Your task to perform on an android device: Open Reddit.com Image 0: 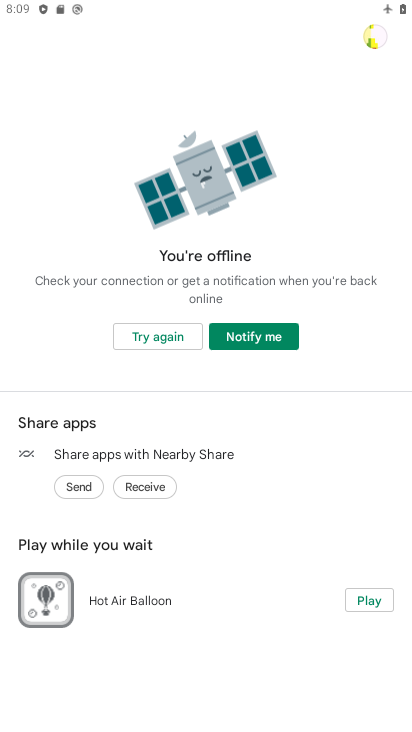
Step 0: press home button
Your task to perform on an android device: Open Reddit.com Image 1: 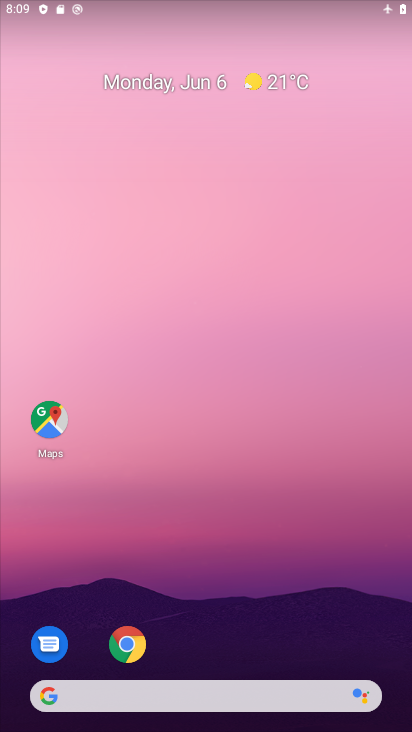
Step 1: click (117, 634)
Your task to perform on an android device: Open Reddit.com Image 2: 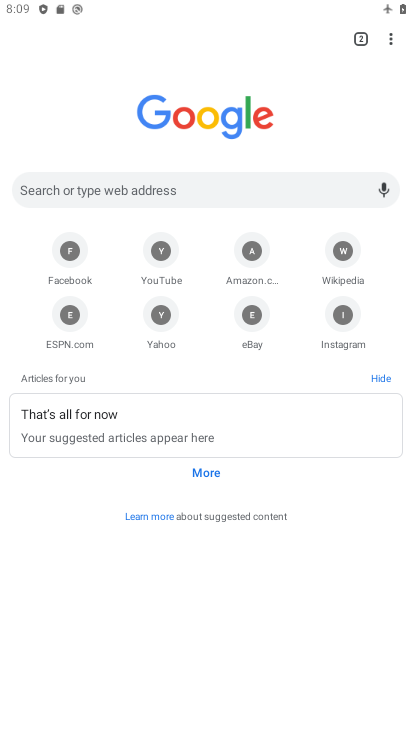
Step 2: click (142, 185)
Your task to perform on an android device: Open Reddit.com Image 3: 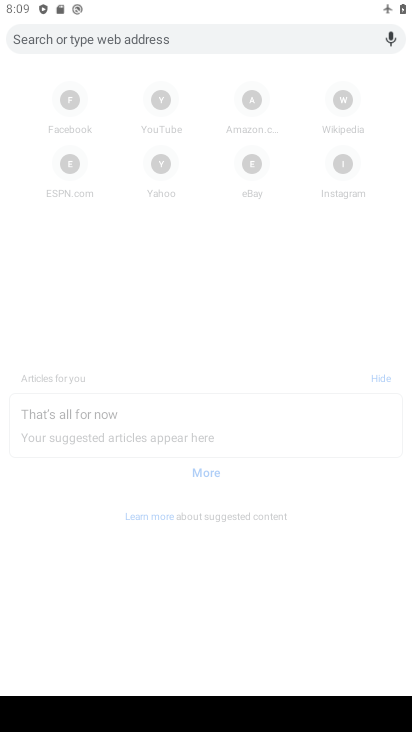
Step 3: type "reddit"
Your task to perform on an android device: Open Reddit.com Image 4: 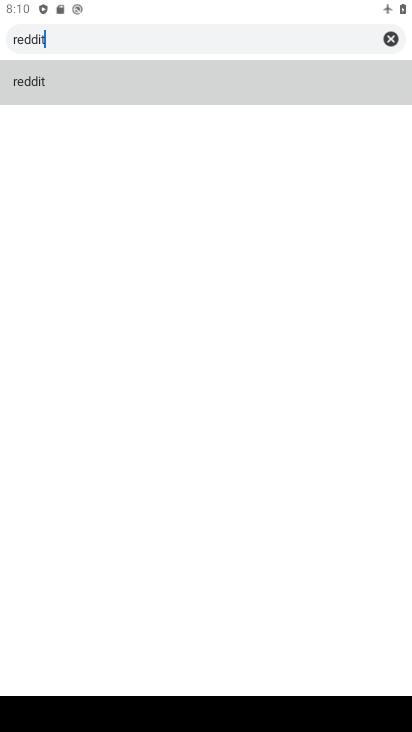
Step 4: click (70, 63)
Your task to perform on an android device: Open Reddit.com Image 5: 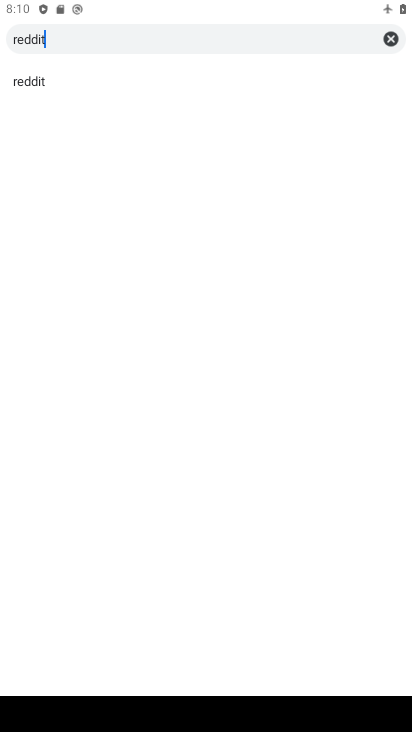
Step 5: task complete